Your task to perform on an android device: open the mobile data screen to see how much data has been used Image 0: 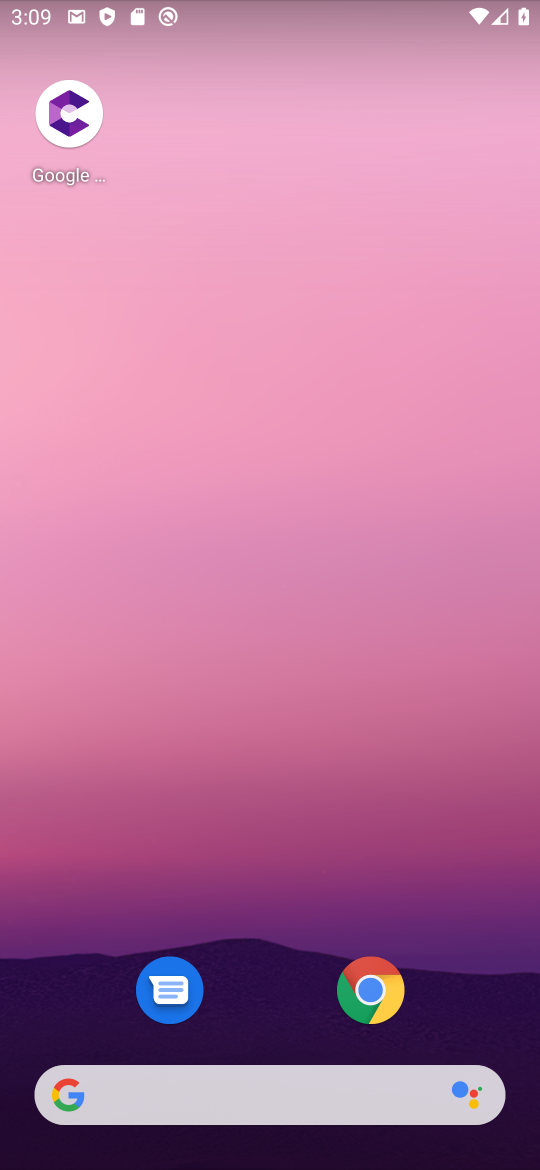
Step 0: drag from (256, 953) to (305, 242)
Your task to perform on an android device: open the mobile data screen to see how much data has been used Image 1: 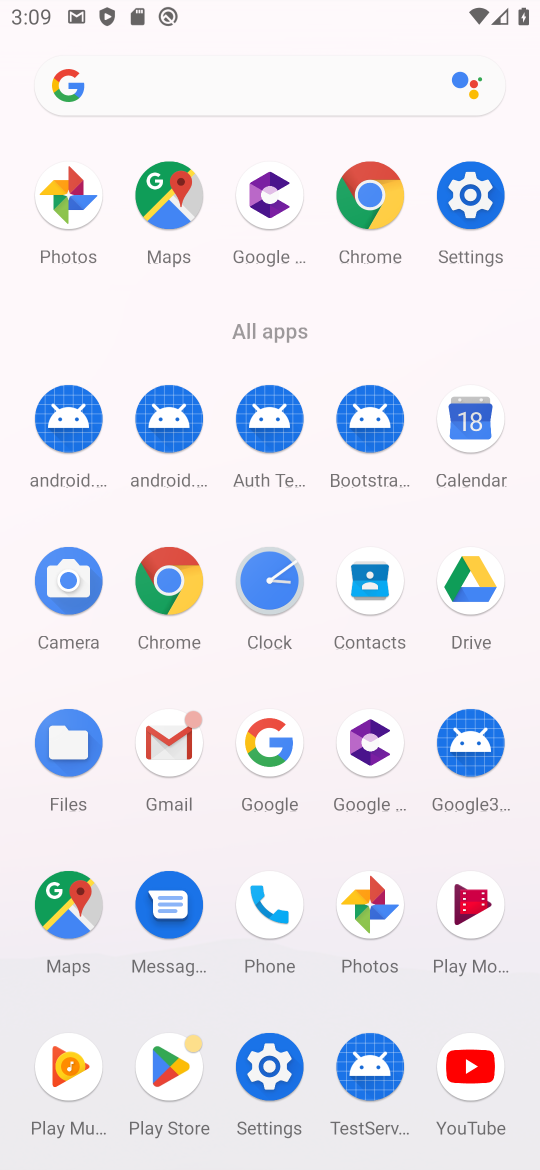
Step 1: click (281, 1060)
Your task to perform on an android device: open the mobile data screen to see how much data has been used Image 2: 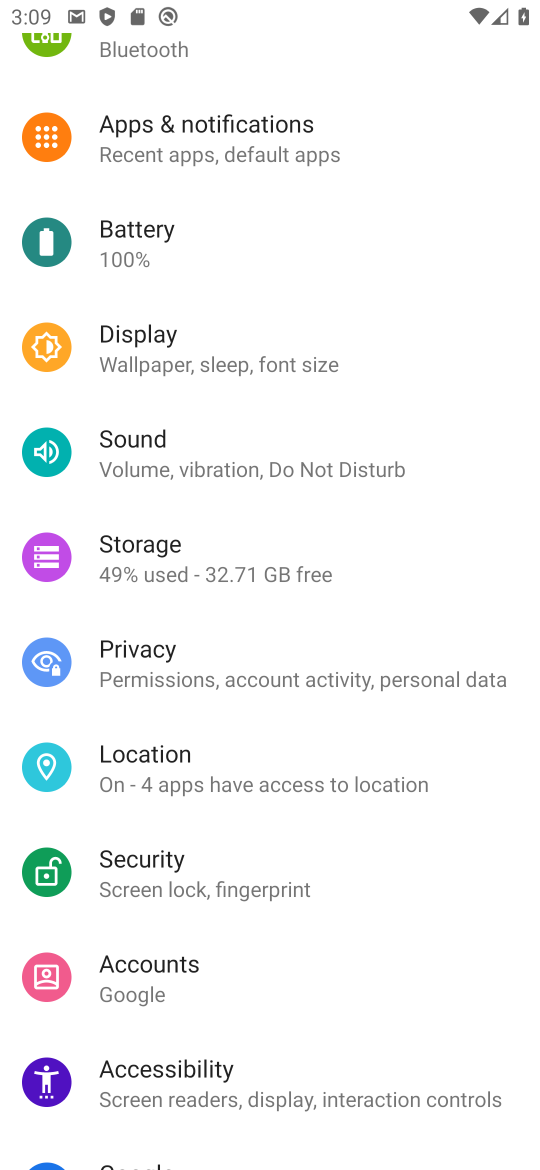
Step 2: drag from (336, 947) to (273, 214)
Your task to perform on an android device: open the mobile data screen to see how much data has been used Image 3: 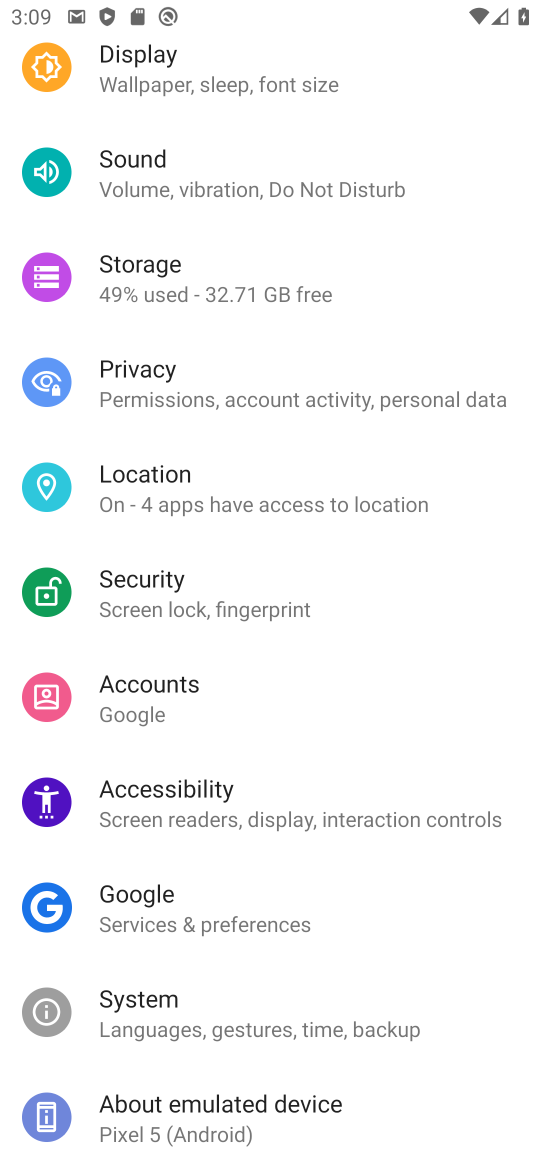
Step 3: drag from (277, 247) to (325, 886)
Your task to perform on an android device: open the mobile data screen to see how much data has been used Image 4: 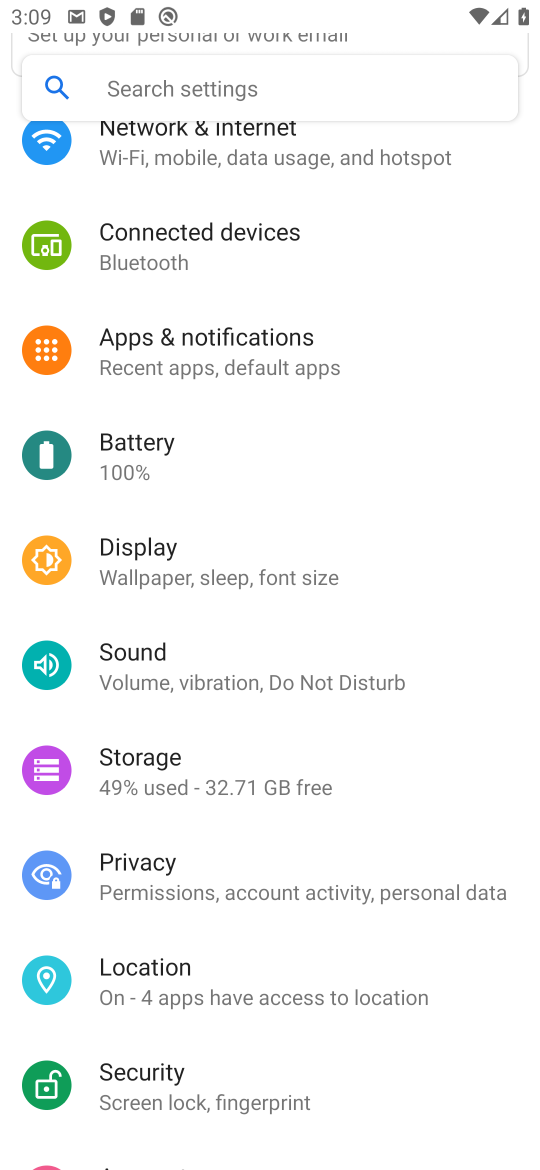
Step 4: drag from (371, 335) to (377, 938)
Your task to perform on an android device: open the mobile data screen to see how much data has been used Image 5: 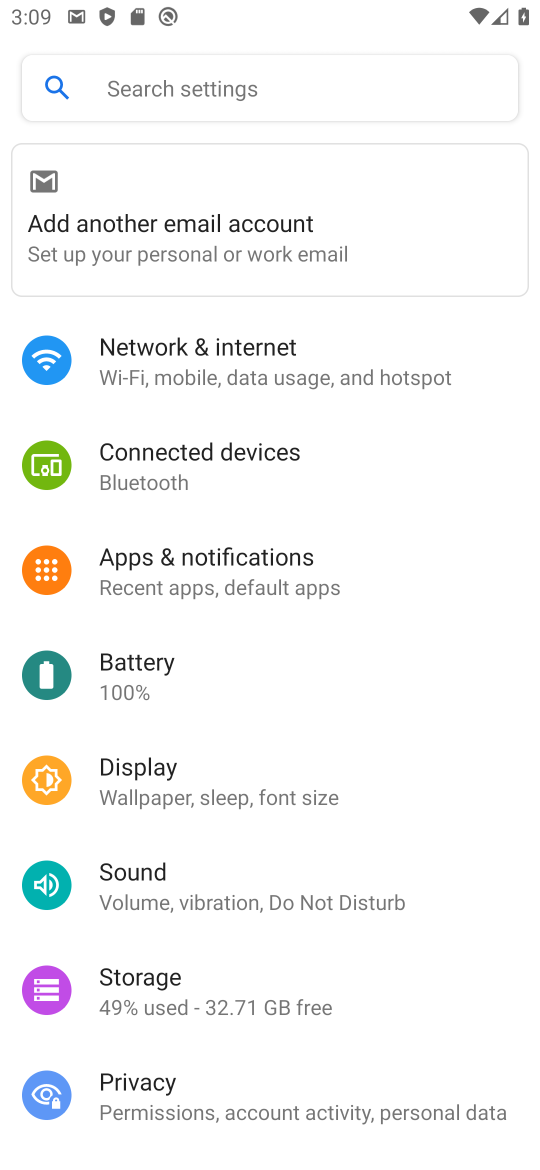
Step 5: click (233, 346)
Your task to perform on an android device: open the mobile data screen to see how much data has been used Image 6: 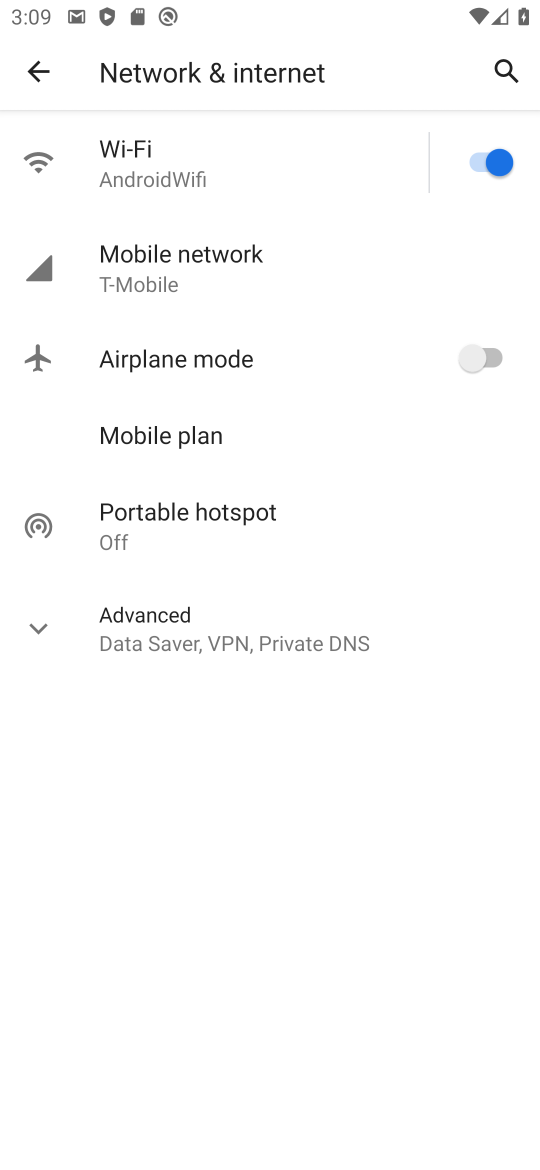
Step 6: click (205, 294)
Your task to perform on an android device: open the mobile data screen to see how much data has been used Image 7: 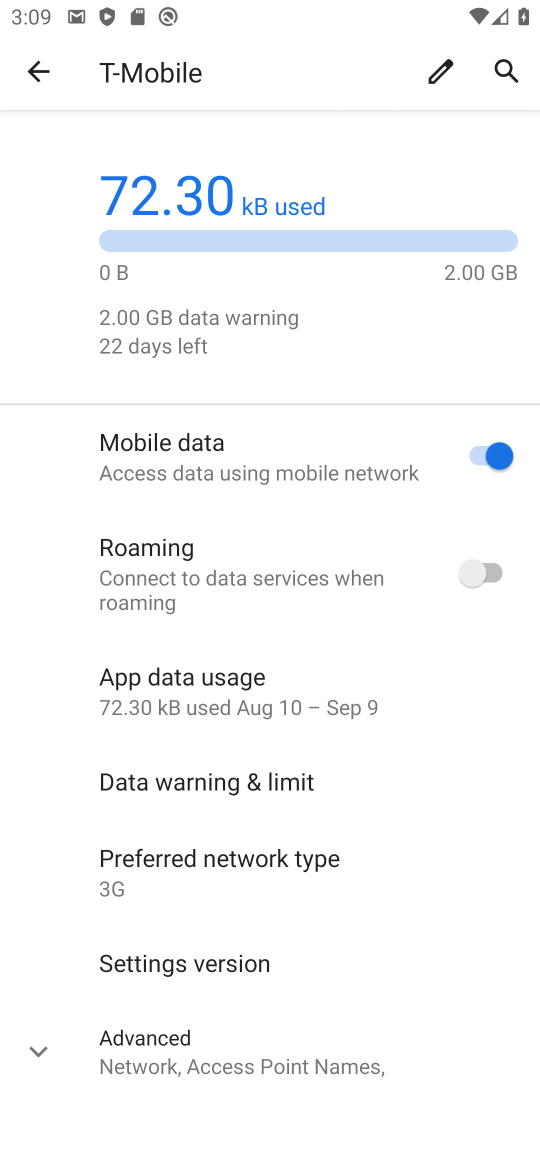
Step 7: task complete